Your task to perform on an android device: move a message to another label in the gmail app Image 0: 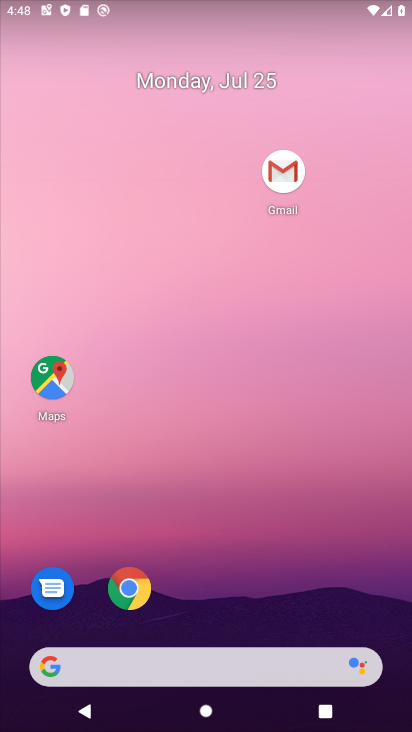
Step 0: drag from (296, 562) to (377, 163)
Your task to perform on an android device: move a message to another label in the gmail app Image 1: 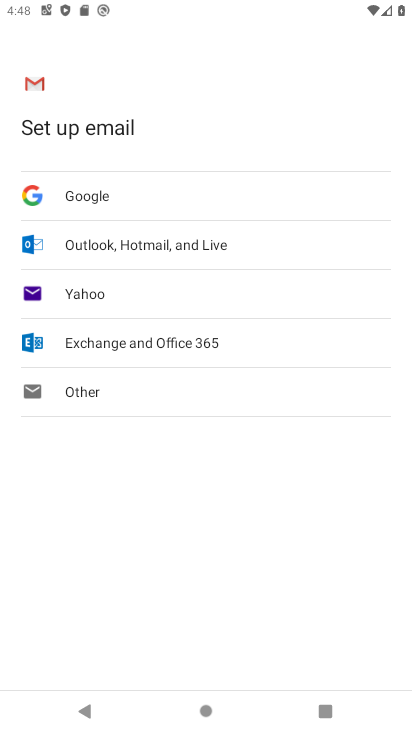
Step 1: press home button
Your task to perform on an android device: move a message to another label in the gmail app Image 2: 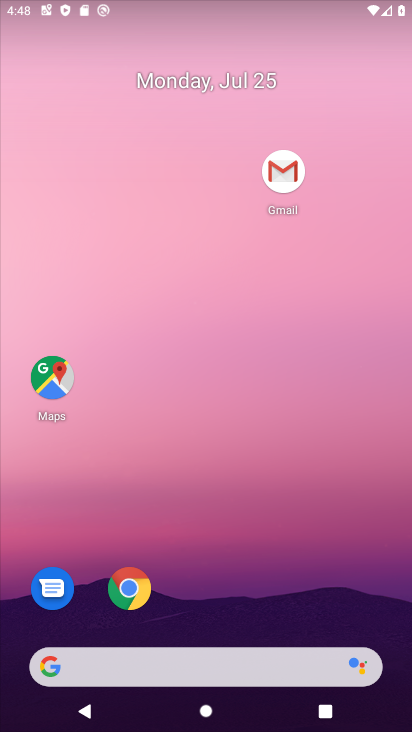
Step 2: drag from (260, 574) to (268, 150)
Your task to perform on an android device: move a message to another label in the gmail app Image 3: 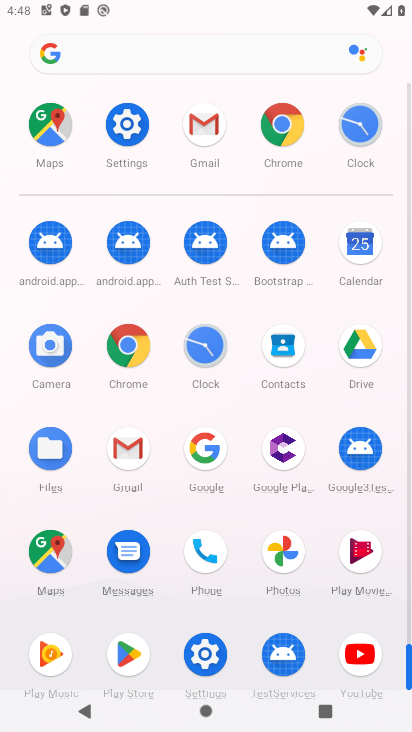
Step 3: click (208, 128)
Your task to perform on an android device: move a message to another label in the gmail app Image 4: 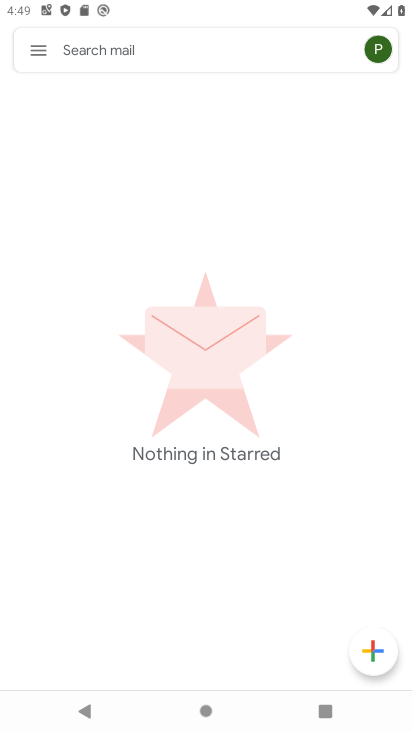
Step 4: click (37, 51)
Your task to perform on an android device: move a message to another label in the gmail app Image 5: 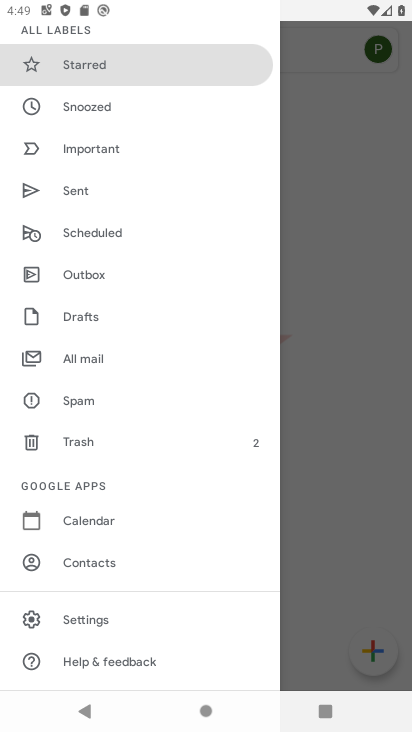
Step 5: click (382, 267)
Your task to perform on an android device: move a message to another label in the gmail app Image 6: 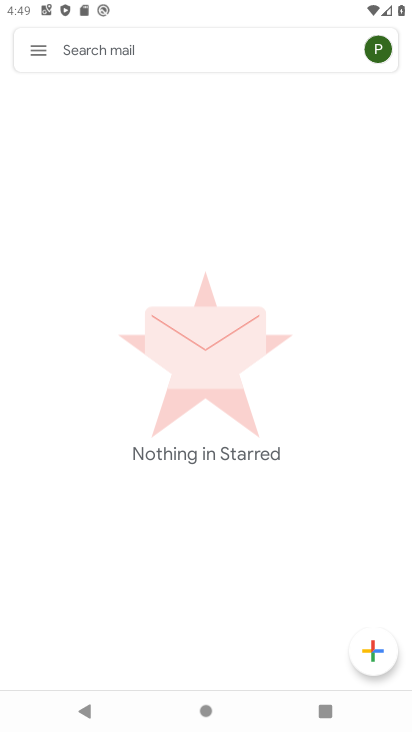
Step 6: click (47, 50)
Your task to perform on an android device: move a message to another label in the gmail app Image 7: 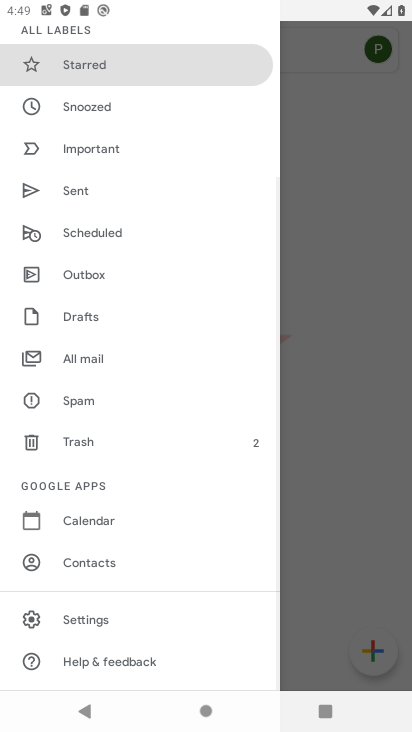
Step 7: click (80, 358)
Your task to perform on an android device: move a message to another label in the gmail app Image 8: 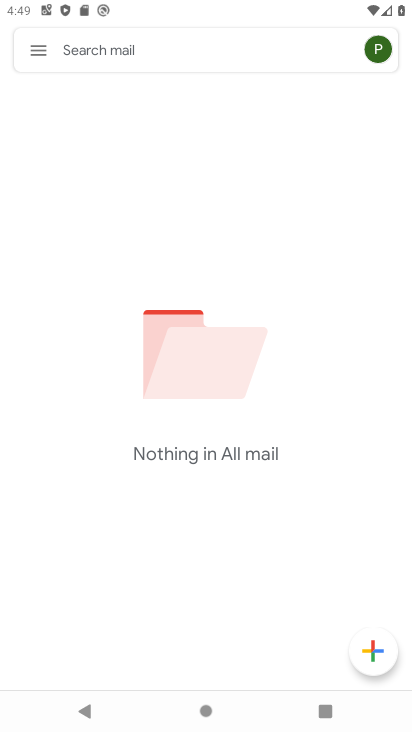
Step 8: task complete